Your task to perform on an android device: set default search engine in the chrome app Image 0: 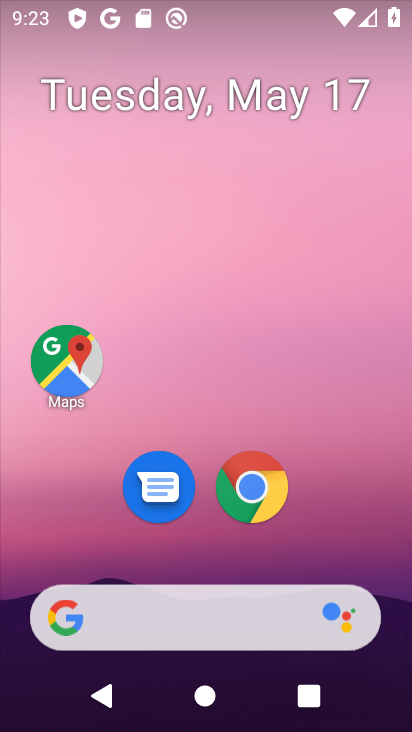
Step 0: drag from (312, 554) to (325, 129)
Your task to perform on an android device: set default search engine in the chrome app Image 1: 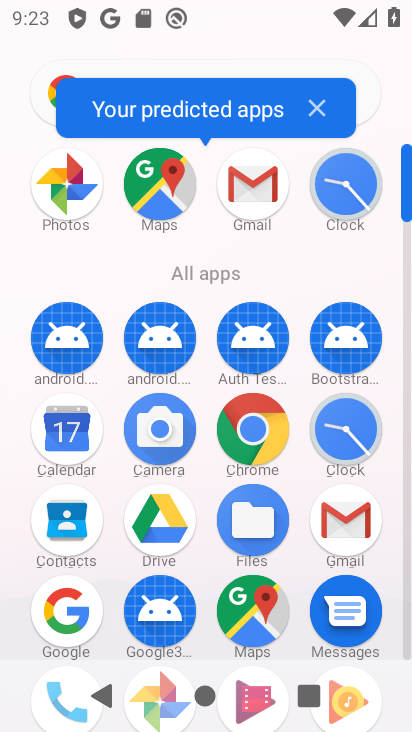
Step 1: click (234, 427)
Your task to perform on an android device: set default search engine in the chrome app Image 2: 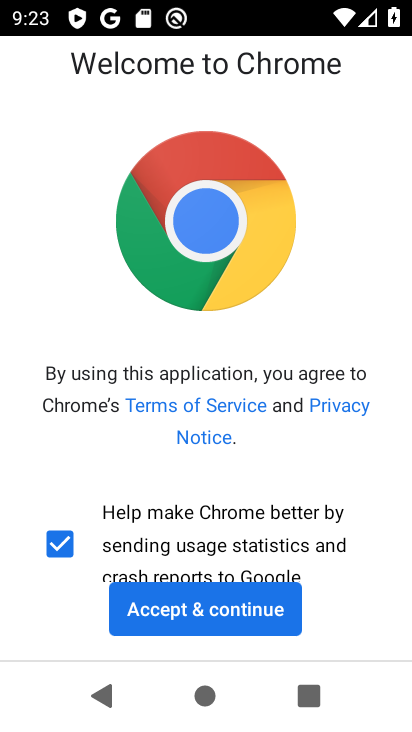
Step 2: click (179, 611)
Your task to perform on an android device: set default search engine in the chrome app Image 3: 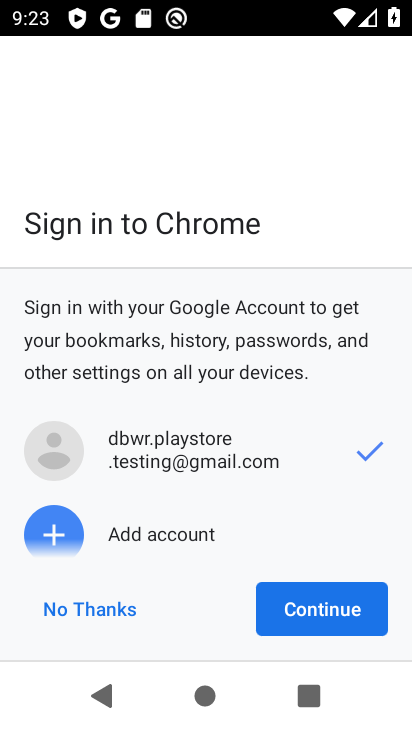
Step 3: click (275, 617)
Your task to perform on an android device: set default search engine in the chrome app Image 4: 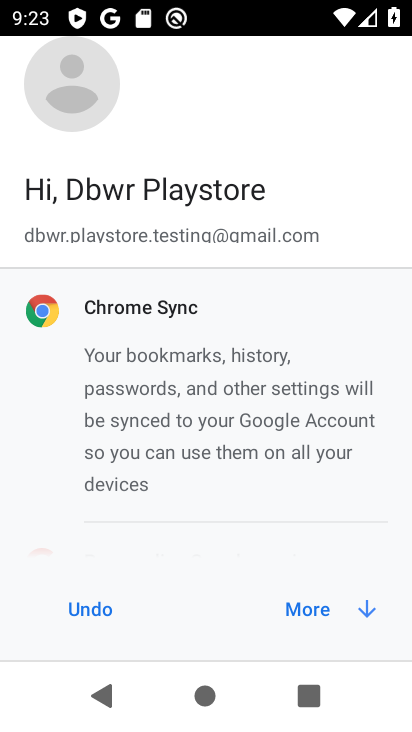
Step 4: click (293, 598)
Your task to perform on an android device: set default search engine in the chrome app Image 5: 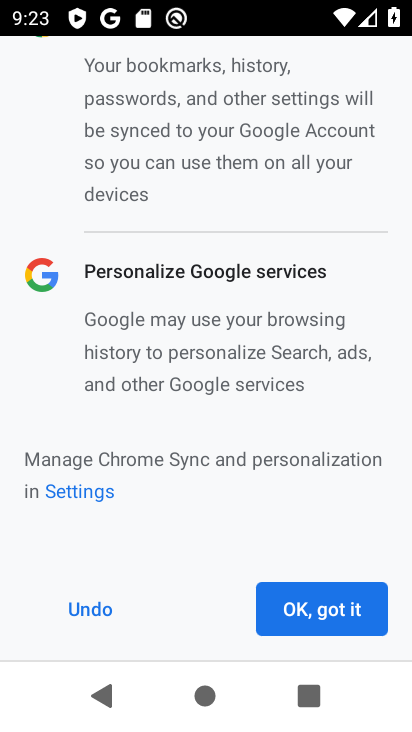
Step 5: click (300, 603)
Your task to perform on an android device: set default search engine in the chrome app Image 6: 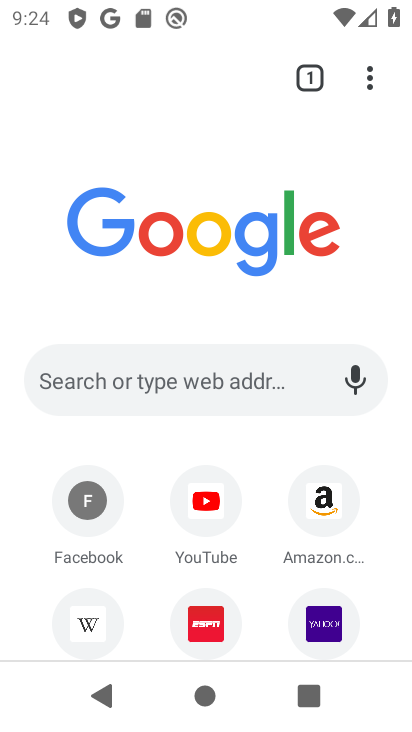
Step 6: click (370, 76)
Your task to perform on an android device: set default search engine in the chrome app Image 7: 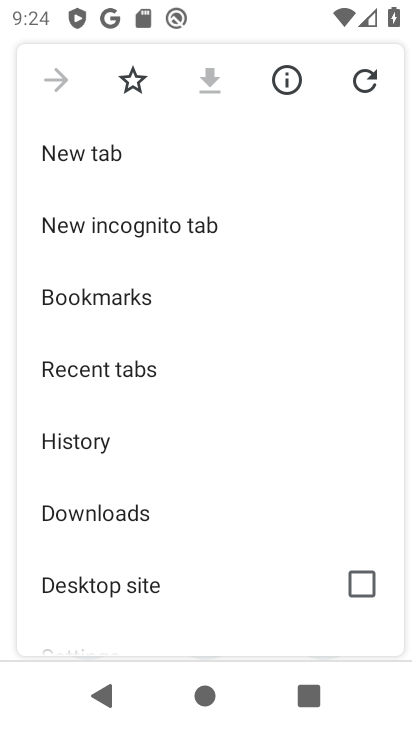
Step 7: drag from (180, 522) to (252, 203)
Your task to perform on an android device: set default search engine in the chrome app Image 8: 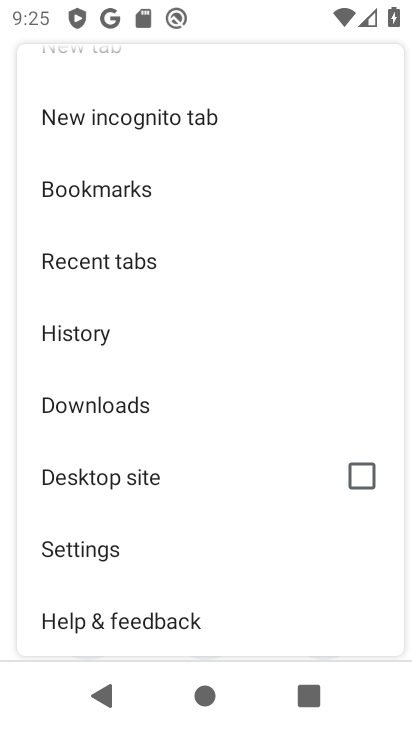
Step 8: drag from (147, 537) to (220, 144)
Your task to perform on an android device: set default search engine in the chrome app Image 9: 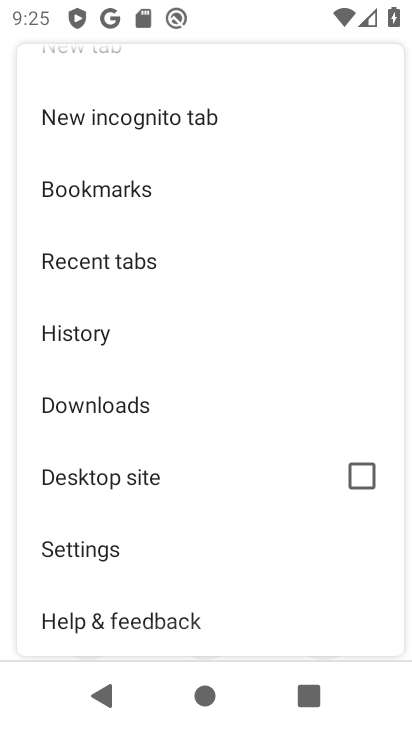
Step 9: drag from (214, 161) to (187, 567)
Your task to perform on an android device: set default search engine in the chrome app Image 10: 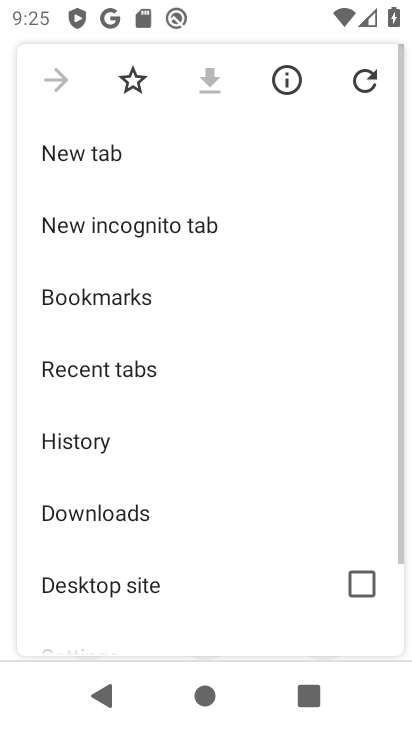
Step 10: drag from (208, 563) to (293, 206)
Your task to perform on an android device: set default search engine in the chrome app Image 11: 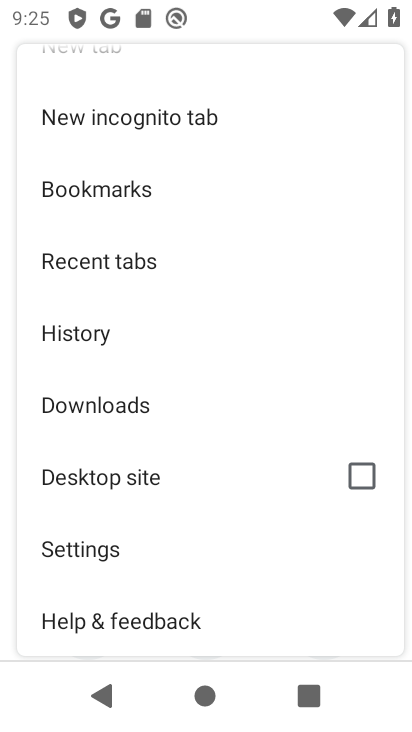
Step 11: click (104, 543)
Your task to perform on an android device: set default search engine in the chrome app Image 12: 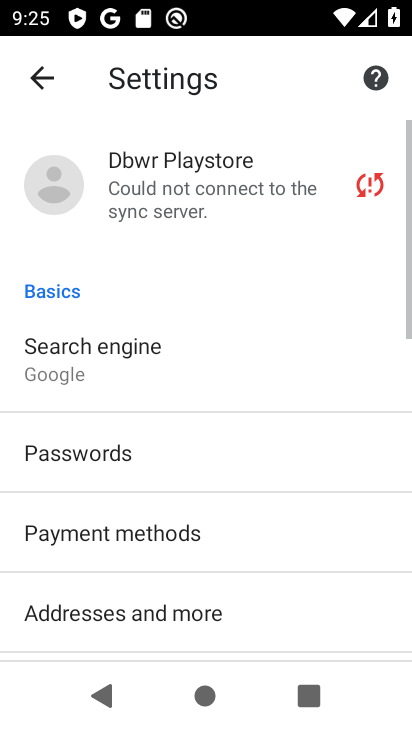
Step 12: click (157, 367)
Your task to perform on an android device: set default search engine in the chrome app Image 13: 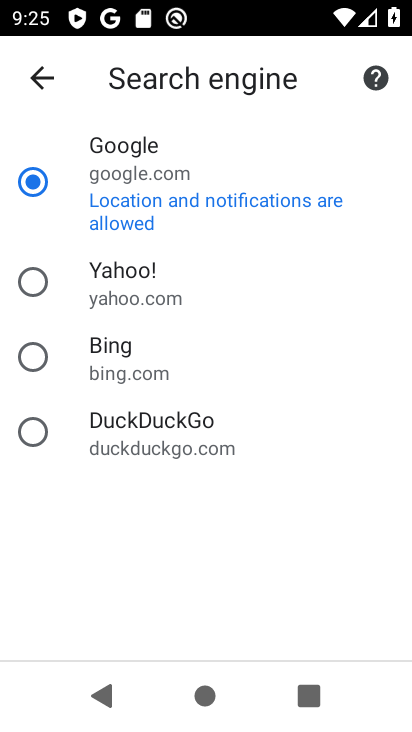
Step 13: click (132, 358)
Your task to perform on an android device: set default search engine in the chrome app Image 14: 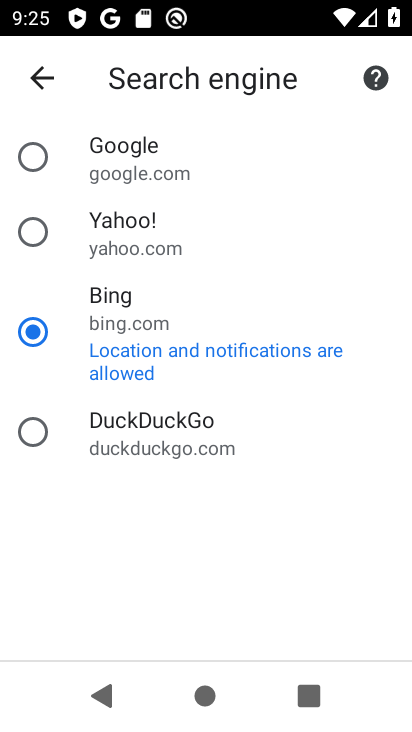
Step 14: task complete